Your task to perform on an android device: toggle notification dots Image 0: 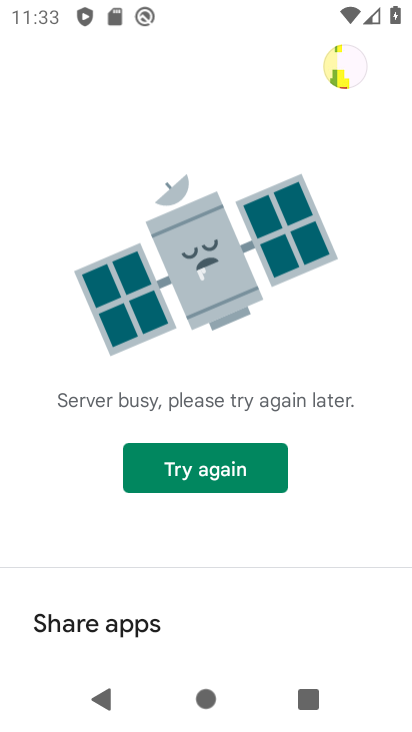
Step 0: press home button
Your task to perform on an android device: toggle notification dots Image 1: 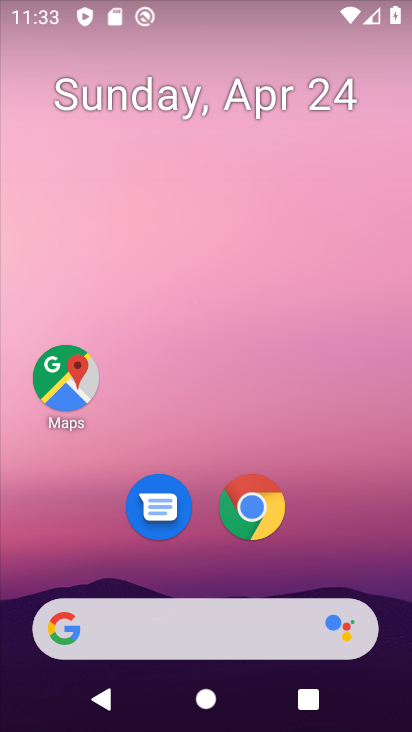
Step 1: drag from (367, 434) to (385, 9)
Your task to perform on an android device: toggle notification dots Image 2: 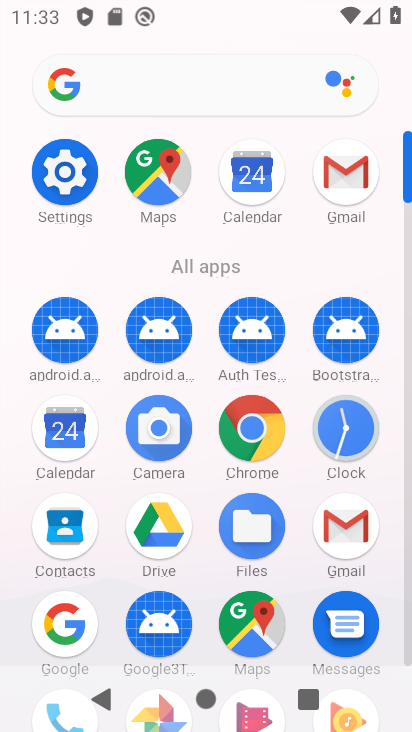
Step 2: click (78, 163)
Your task to perform on an android device: toggle notification dots Image 3: 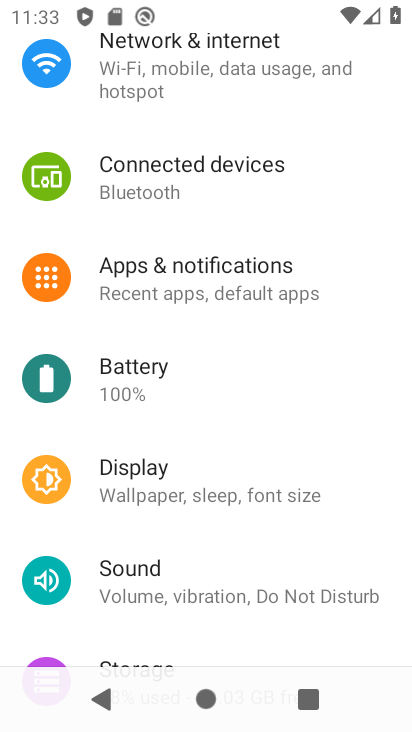
Step 3: click (242, 258)
Your task to perform on an android device: toggle notification dots Image 4: 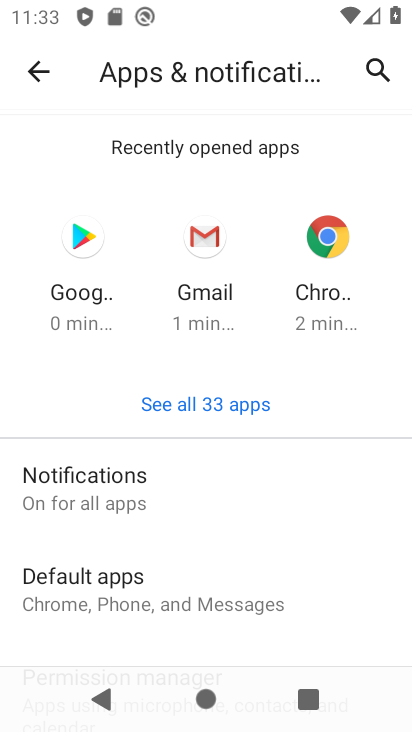
Step 4: click (141, 473)
Your task to perform on an android device: toggle notification dots Image 5: 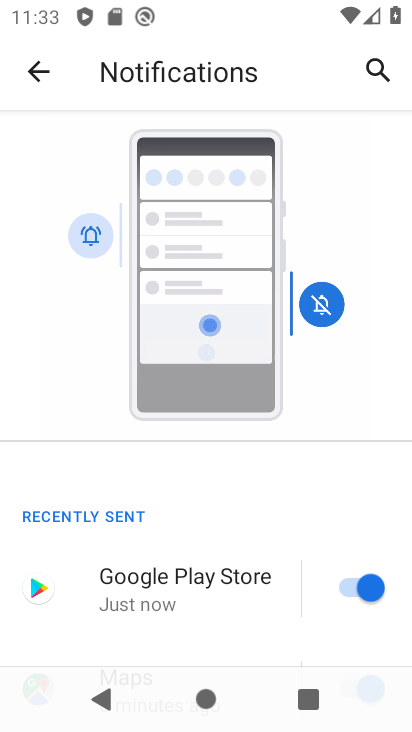
Step 5: drag from (314, 481) to (320, 152)
Your task to perform on an android device: toggle notification dots Image 6: 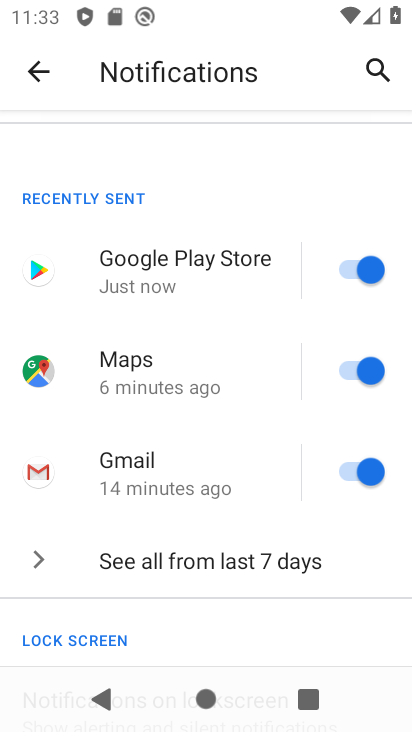
Step 6: drag from (251, 622) to (291, 211)
Your task to perform on an android device: toggle notification dots Image 7: 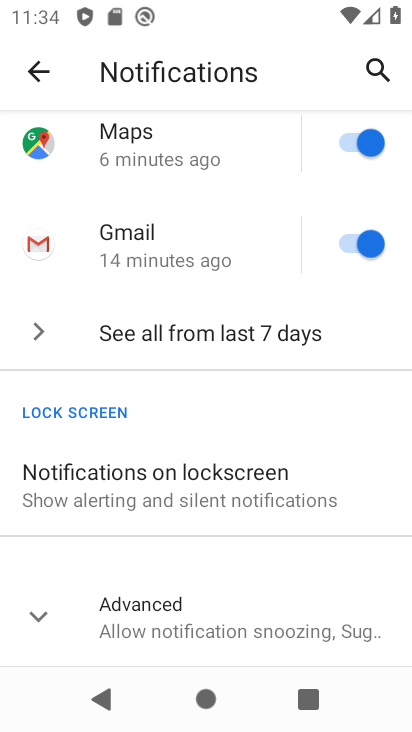
Step 7: click (228, 620)
Your task to perform on an android device: toggle notification dots Image 8: 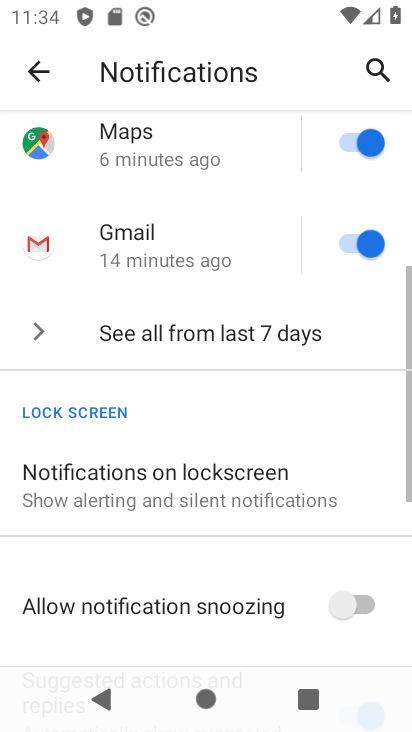
Step 8: drag from (281, 612) to (355, 338)
Your task to perform on an android device: toggle notification dots Image 9: 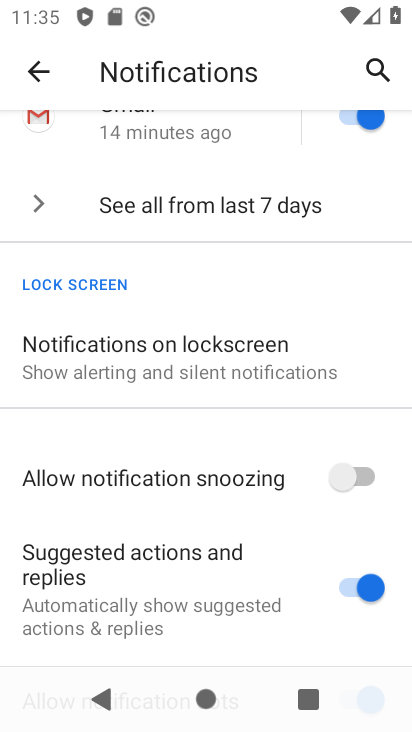
Step 9: drag from (215, 461) to (243, 264)
Your task to perform on an android device: toggle notification dots Image 10: 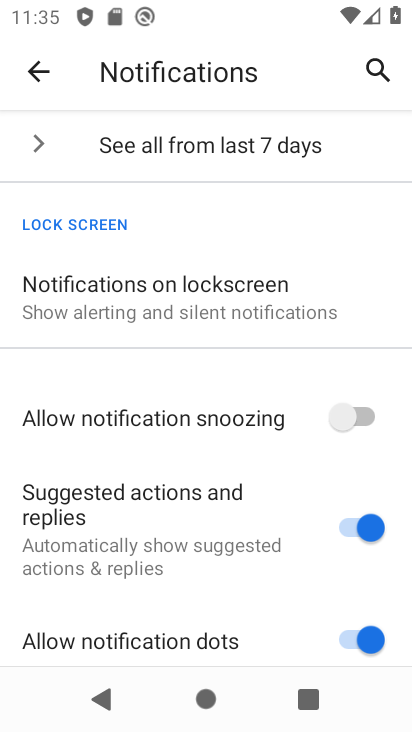
Step 10: drag from (257, 551) to (302, 382)
Your task to perform on an android device: toggle notification dots Image 11: 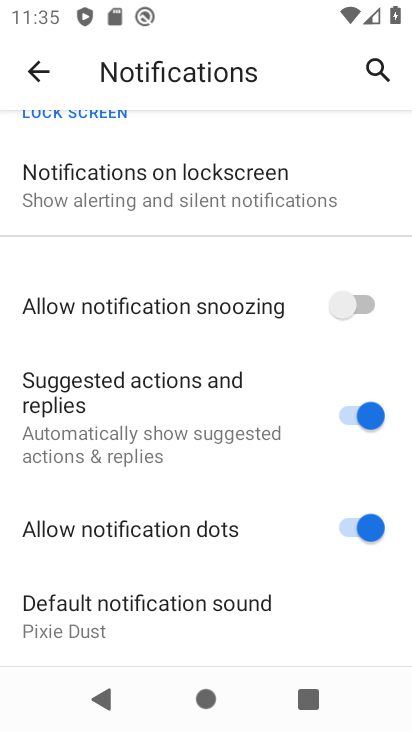
Step 11: drag from (258, 591) to (358, 185)
Your task to perform on an android device: toggle notification dots Image 12: 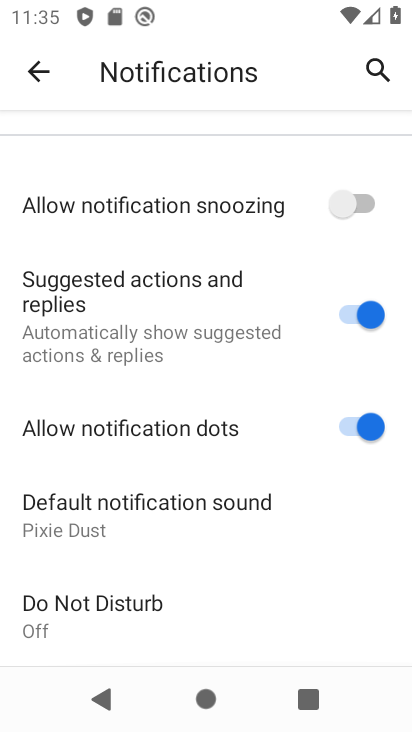
Step 12: drag from (245, 572) to (282, 435)
Your task to perform on an android device: toggle notification dots Image 13: 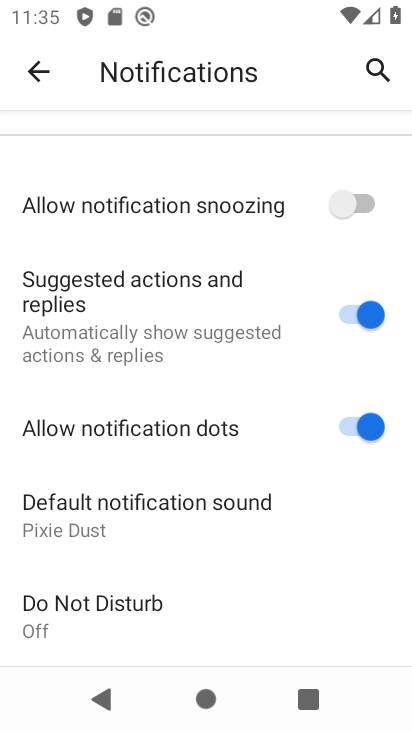
Step 13: click (353, 427)
Your task to perform on an android device: toggle notification dots Image 14: 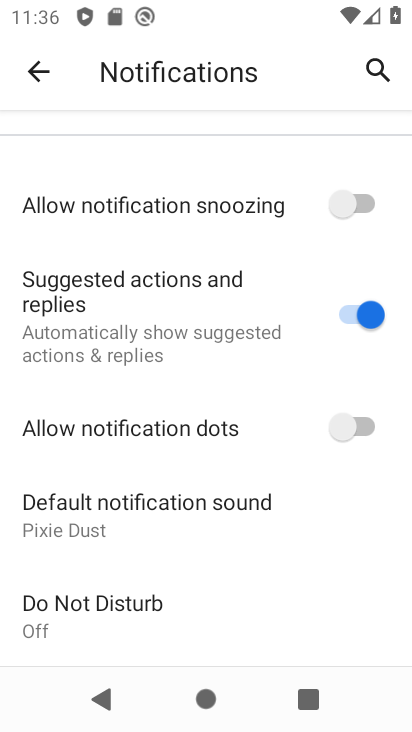
Step 14: task complete